Your task to perform on an android device: Play the last video I watched on Youtube Image 0: 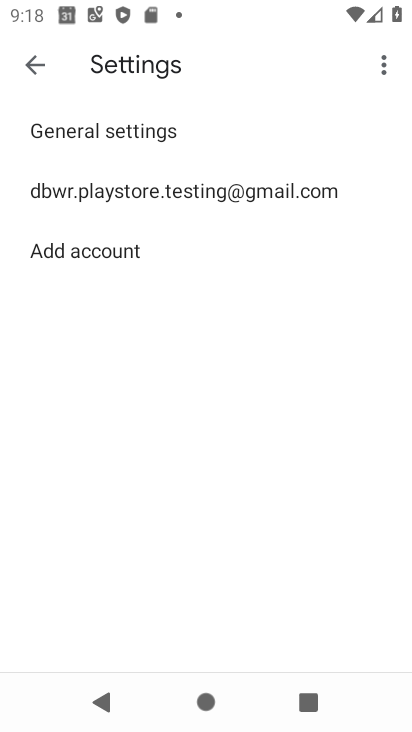
Step 0: press home button
Your task to perform on an android device: Play the last video I watched on Youtube Image 1: 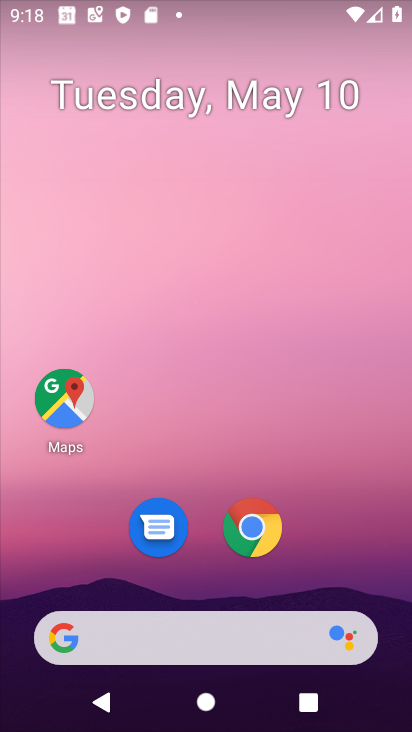
Step 1: drag from (319, 613) to (318, 259)
Your task to perform on an android device: Play the last video I watched on Youtube Image 2: 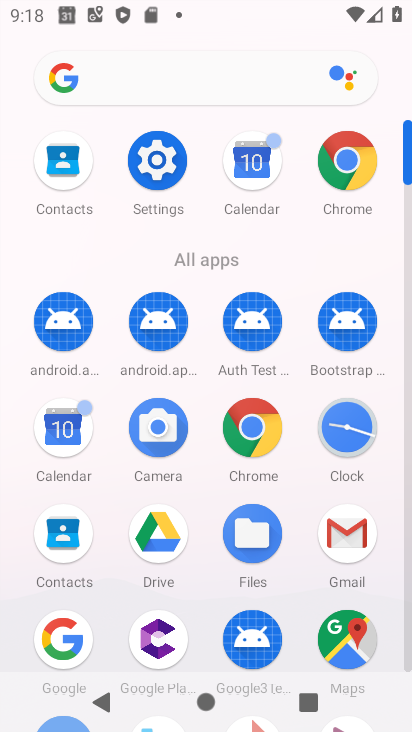
Step 2: drag from (298, 603) to (308, 369)
Your task to perform on an android device: Play the last video I watched on Youtube Image 3: 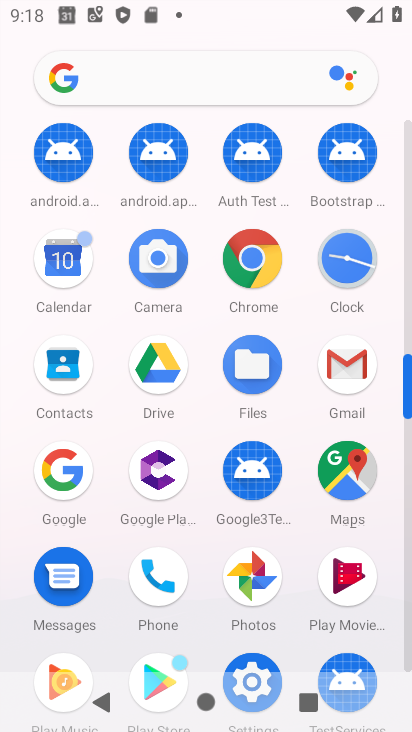
Step 3: drag from (299, 596) to (297, 435)
Your task to perform on an android device: Play the last video I watched on Youtube Image 4: 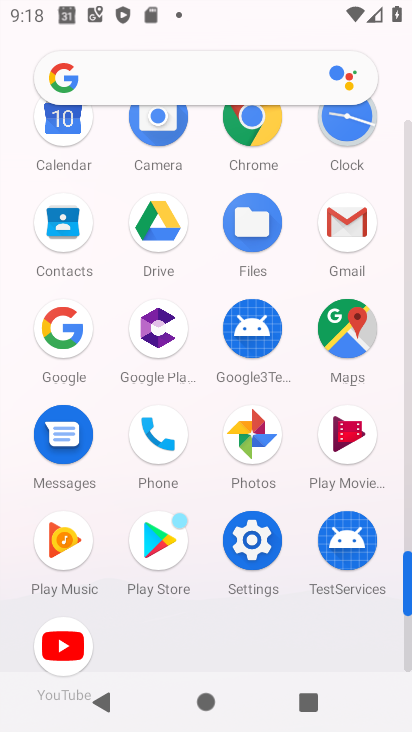
Step 4: click (49, 647)
Your task to perform on an android device: Play the last video I watched on Youtube Image 5: 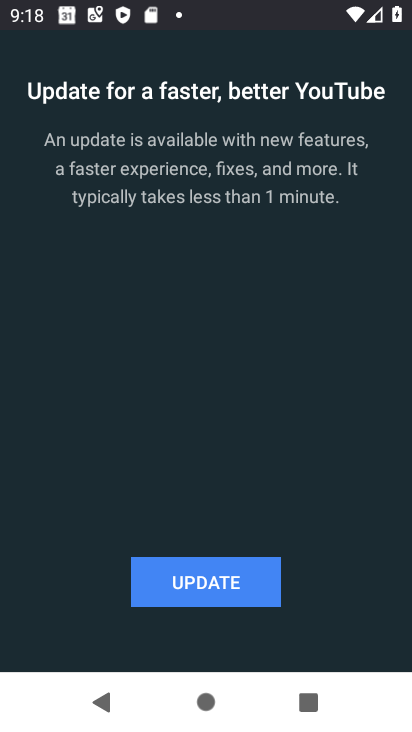
Step 5: click (188, 585)
Your task to perform on an android device: Play the last video I watched on Youtube Image 6: 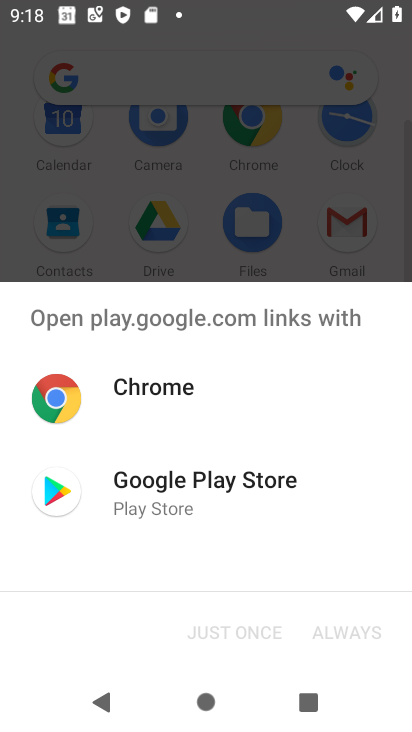
Step 6: click (187, 515)
Your task to perform on an android device: Play the last video I watched on Youtube Image 7: 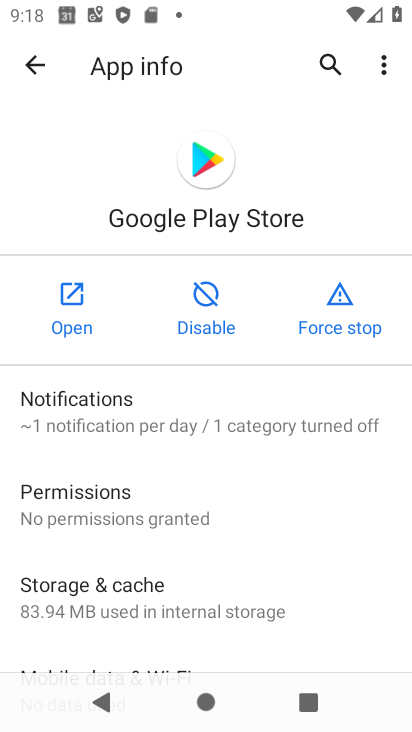
Step 7: click (36, 72)
Your task to perform on an android device: Play the last video I watched on Youtube Image 8: 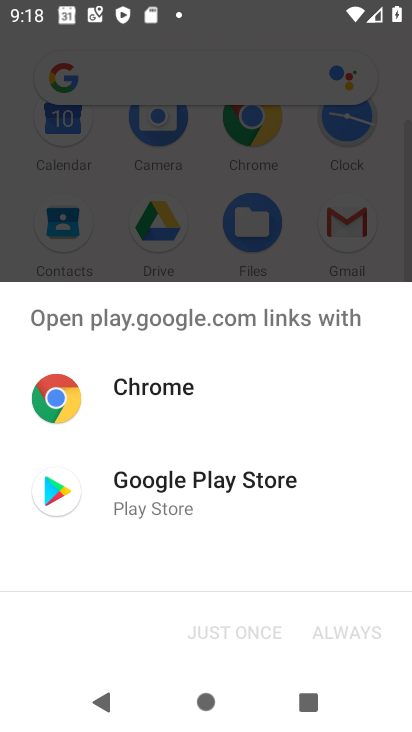
Step 8: click (224, 508)
Your task to perform on an android device: Play the last video I watched on Youtube Image 9: 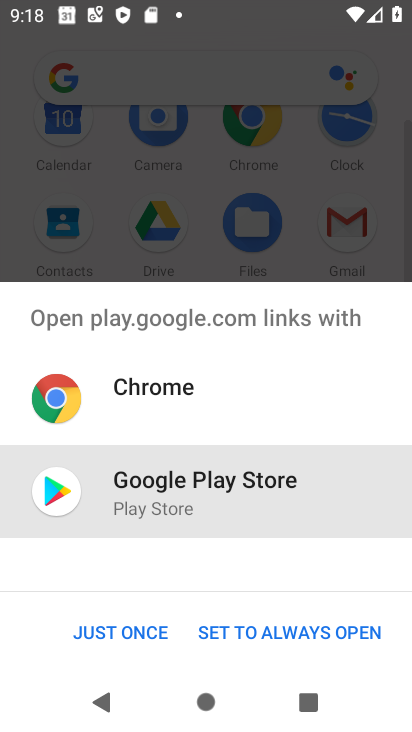
Step 9: click (276, 639)
Your task to perform on an android device: Play the last video I watched on Youtube Image 10: 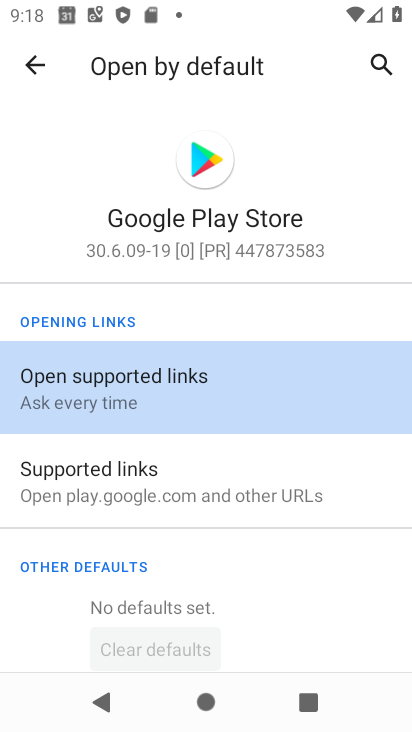
Step 10: click (107, 483)
Your task to perform on an android device: Play the last video I watched on Youtube Image 11: 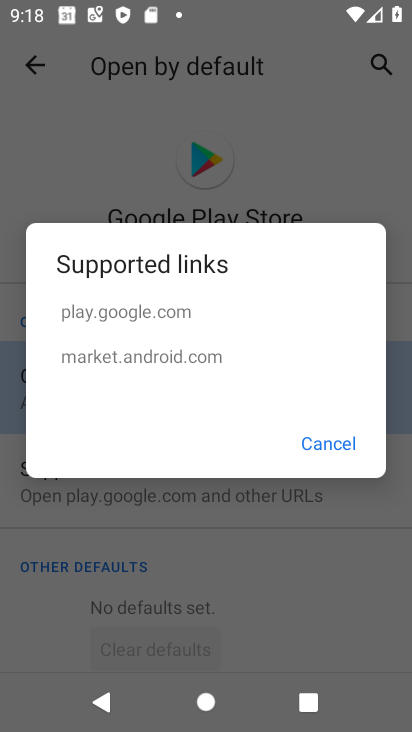
Step 11: click (325, 462)
Your task to perform on an android device: Play the last video I watched on Youtube Image 12: 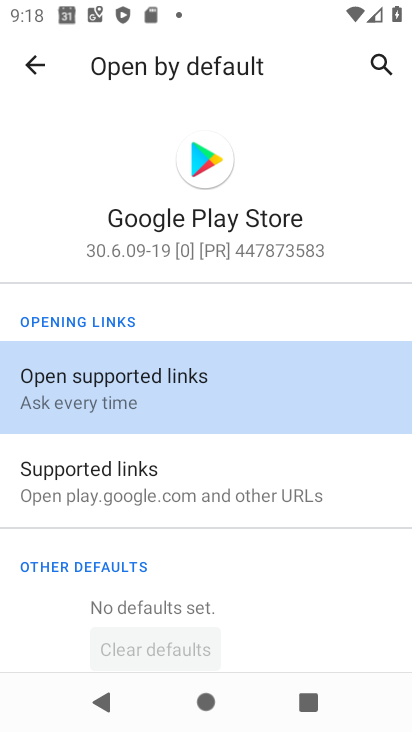
Step 12: click (186, 417)
Your task to perform on an android device: Play the last video I watched on Youtube Image 13: 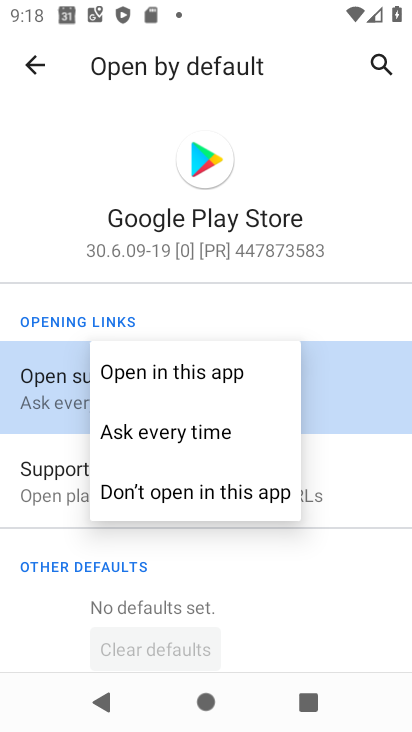
Step 13: click (192, 373)
Your task to perform on an android device: Play the last video I watched on Youtube Image 14: 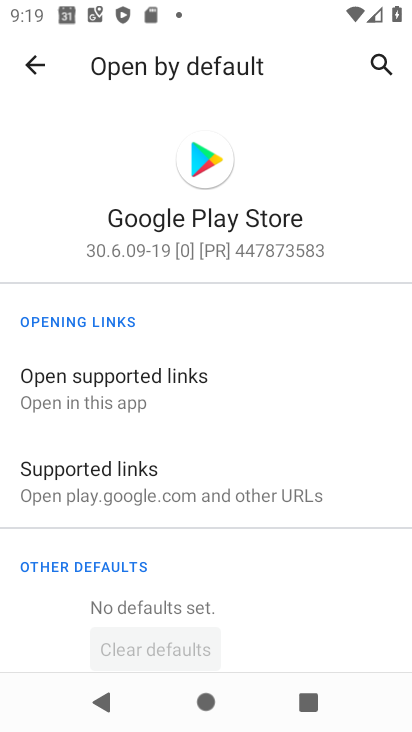
Step 14: click (51, 68)
Your task to perform on an android device: Play the last video I watched on Youtube Image 15: 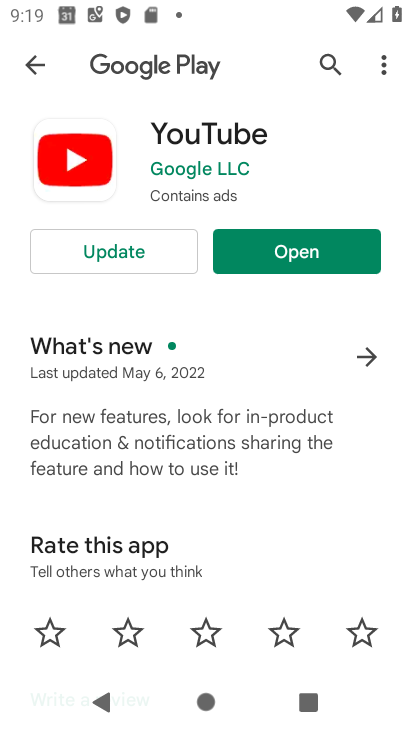
Step 15: click (129, 269)
Your task to perform on an android device: Play the last video I watched on Youtube Image 16: 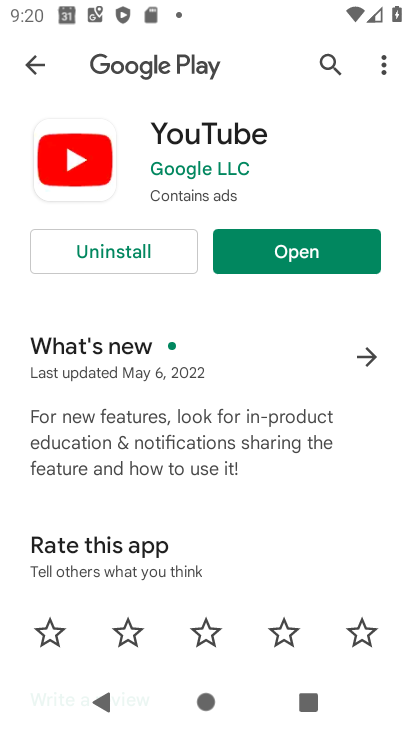
Step 16: click (248, 260)
Your task to perform on an android device: Play the last video I watched on Youtube Image 17: 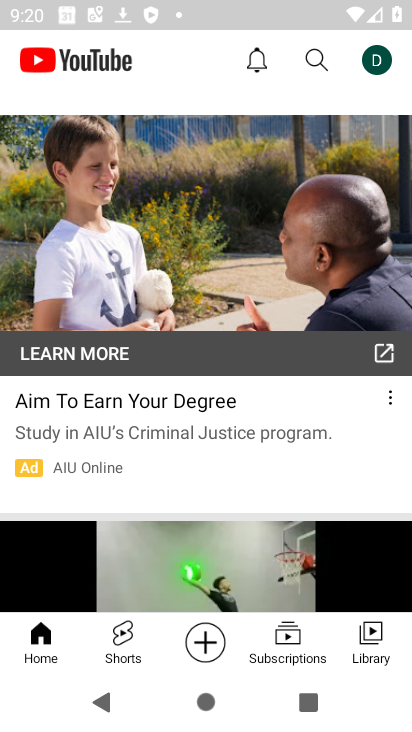
Step 17: click (372, 664)
Your task to perform on an android device: Play the last video I watched on Youtube Image 18: 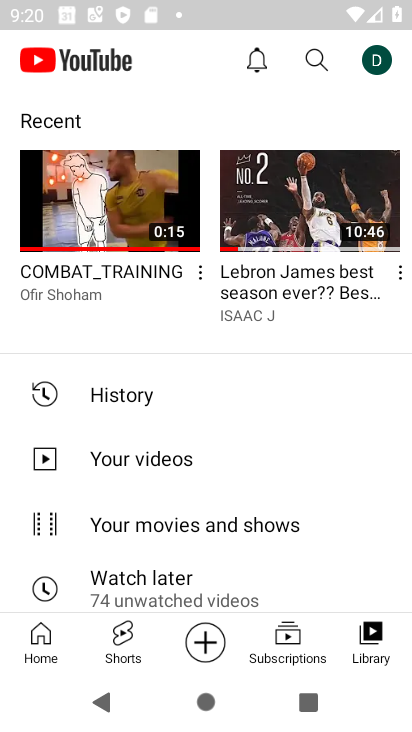
Step 18: task complete